Your task to perform on an android device: Open calendar and show me the second week of next month Image 0: 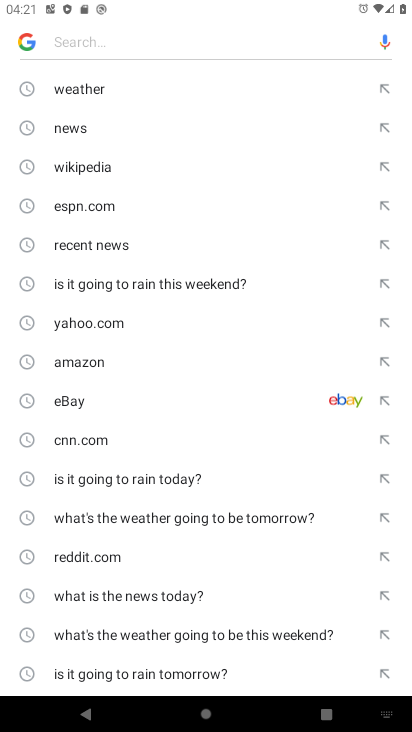
Step 0: press home button
Your task to perform on an android device: Open calendar and show me the second week of next month Image 1: 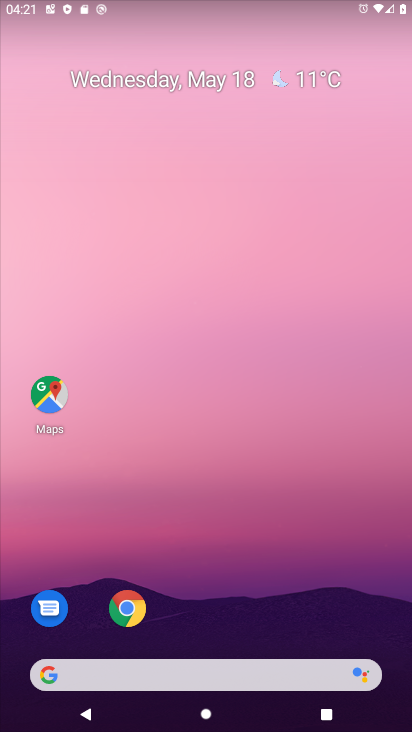
Step 1: click (194, 78)
Your task to perform on an android device: Open calendar and show me the second week of next month Image 2: 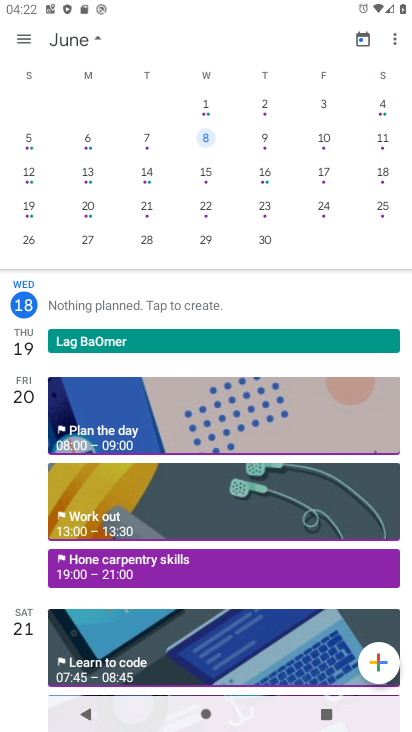
Step 2: click (204, 139)
Your task to perform on an android device: Open calendar and show me the second week of next month Image 3: 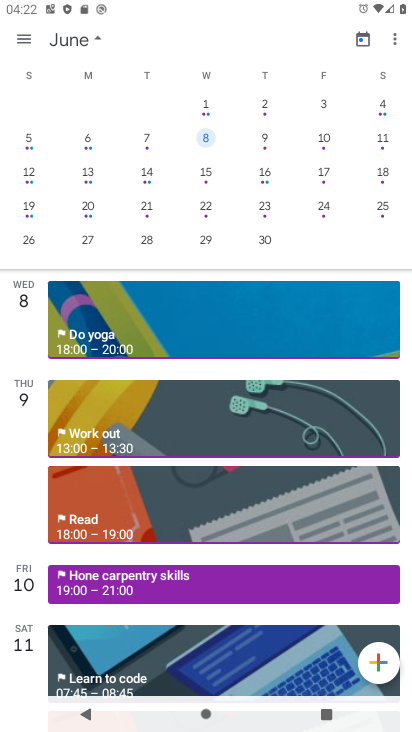
Step 3: task complete